Your task to perform on an android device: Open Chrome and go to settings Image 0: 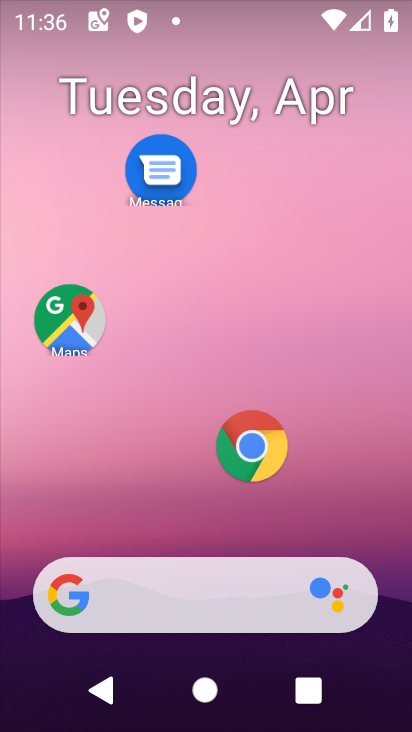
Step 0: drag from (274, 476) to (275, 70)
Your task to perform on an android device: Open Chrome and go to settings Image 1: 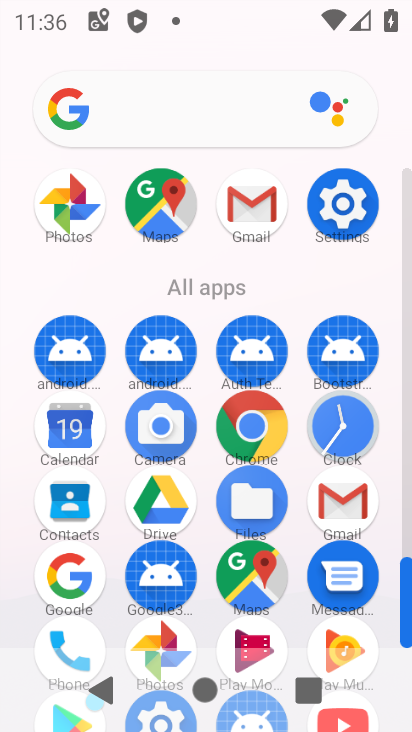
Step 1: click (258, 410)
Your task to perform on an android device: Open Chrome and go to settings Image 2: 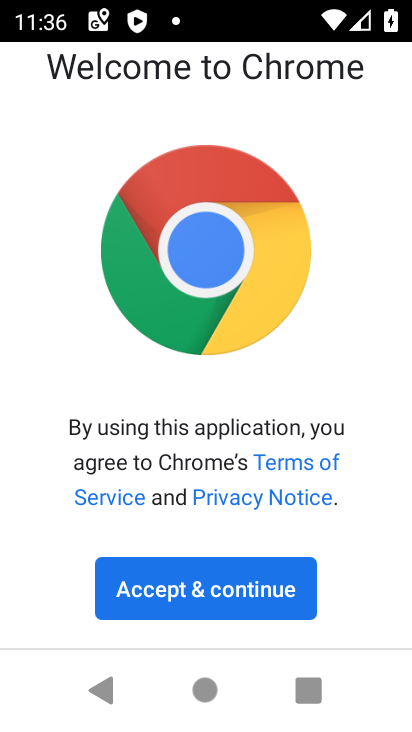
Step 2: click (247, 596)
Your task to perform on an android device: Open Chrome and go to settings Image 3: 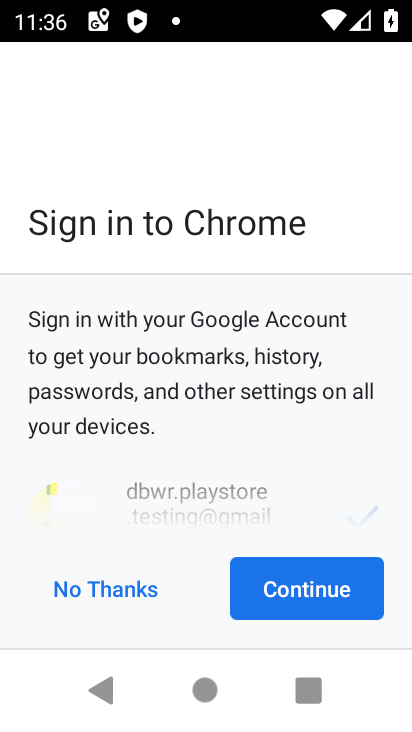
Step 3: click (133, 589)
Your task to perform on an android device: Open Chrome and go to settings Image 4: 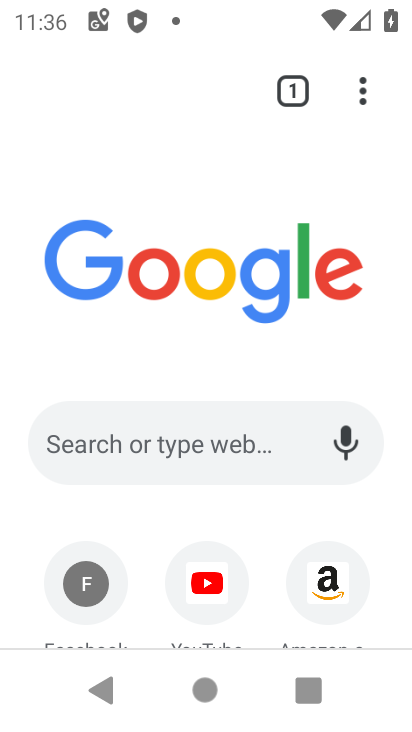
Step 4: click (362, 91)
Your task to perform on an android device: Open Chrome and go to settings Image 5: 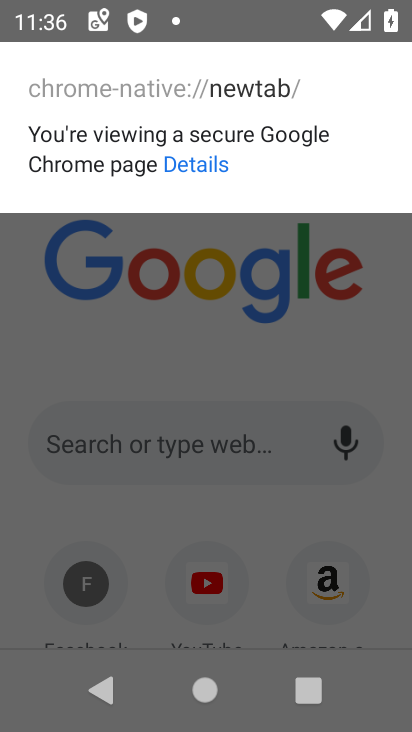
Step 5: click (364, 356)
Your task to perform on an android device: Open Chrome and go to settings Image 6: 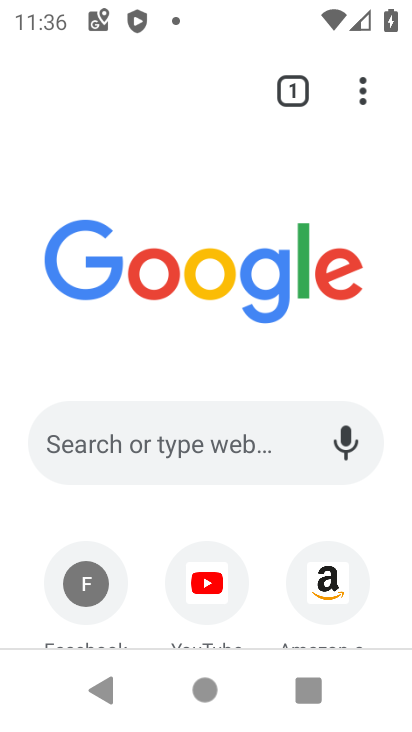
Step 6: click (363, 99)
Your task to perform on an android device: Open Chrome and go to settings Image 7: 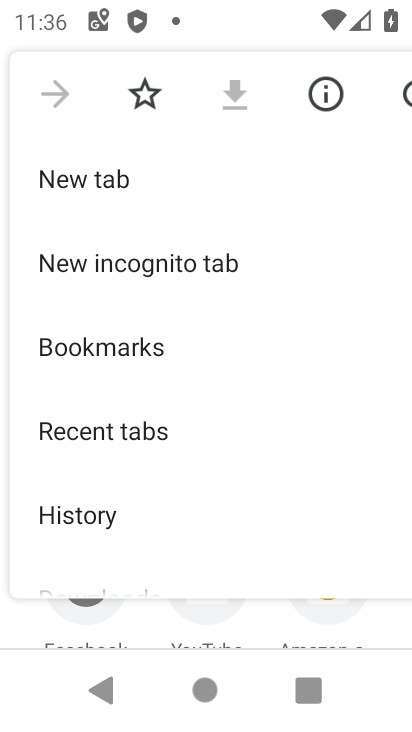
Step 7: drag from (269, 568) to (238, 75)
Your task to perform on an android device: Open Chrome and go to settings Image 8: 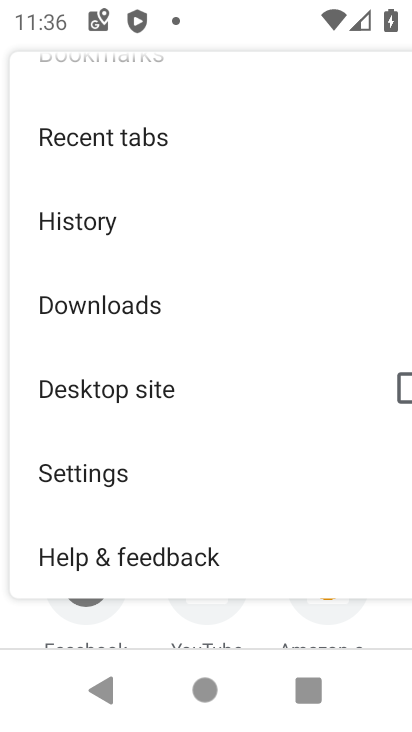
Step 8: click (176, 482)
Your task to perform on an android device: Open Chrome and go to settings Image 9: 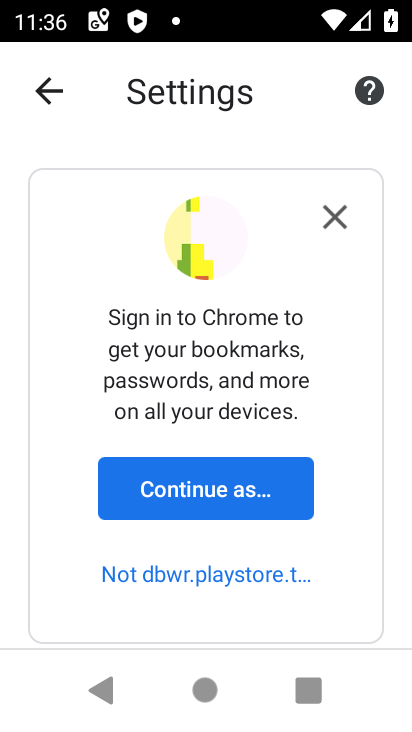
Step 9: task complete